Your task to perform on an android device: Open maps Image 0: 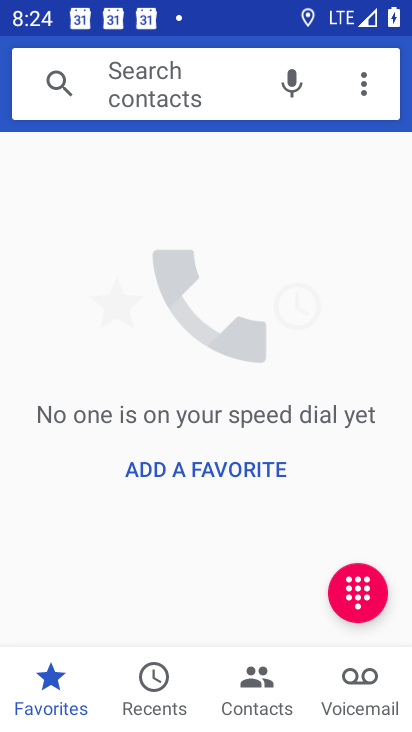
Step 0: press home button
Your task to perform on an android device: Open maps Image 1: 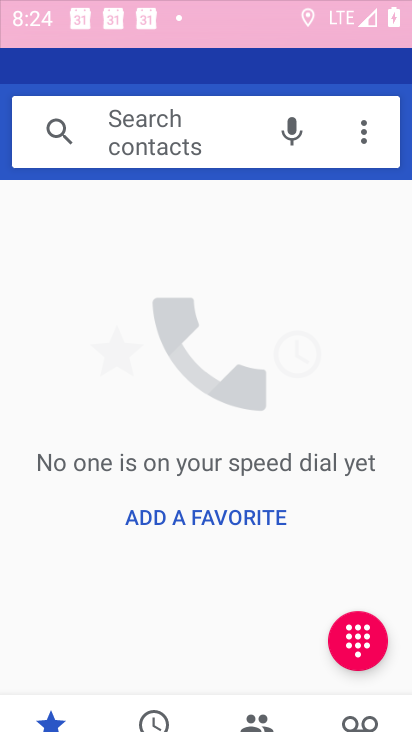
Step 1: press home button
Your task to perform on an android device: Open maps Image 2: 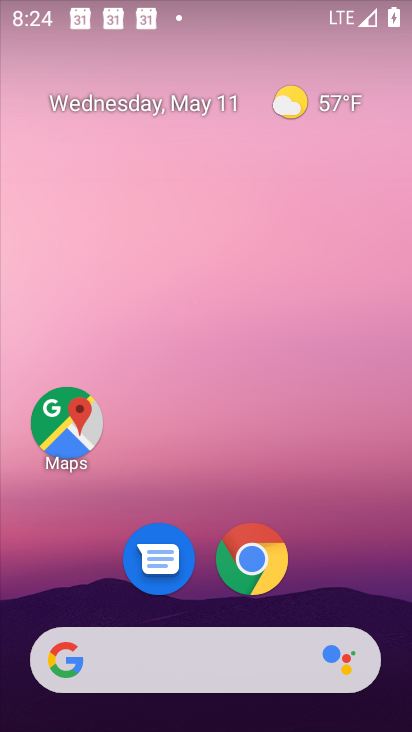
Step 2: click (82, 430)
Your task to perform on an android device: Open maps Image 3: 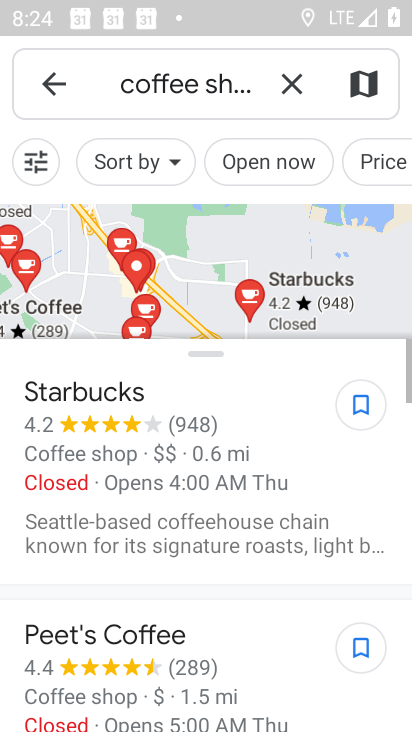
Step 3: task complete